Your task to perform on an android device: turn on sleep mode Image 0: 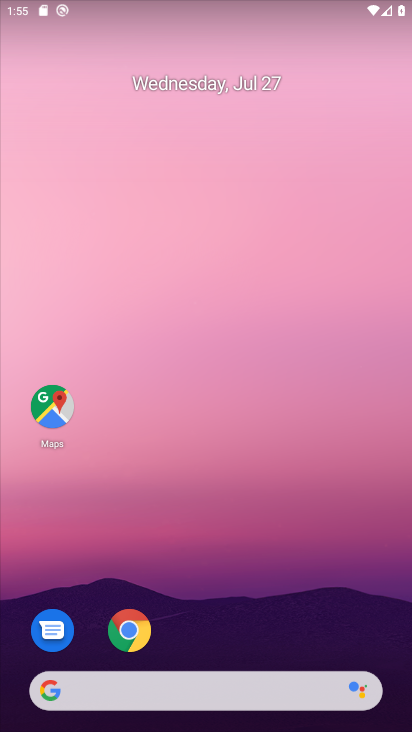
Step 0: drag from (248, 625) to (247, 37)
Your task to perform on an android device: turn on sleep mode Image 1: 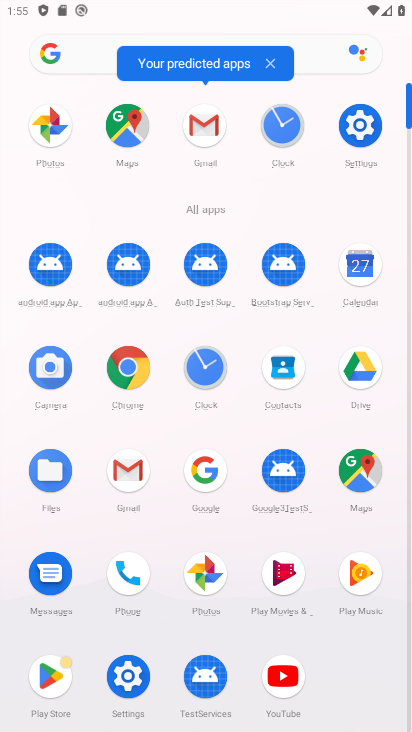
Step 1: click (125, 684)
Your task to perform on an android device: turn on sleep mode Image 2: 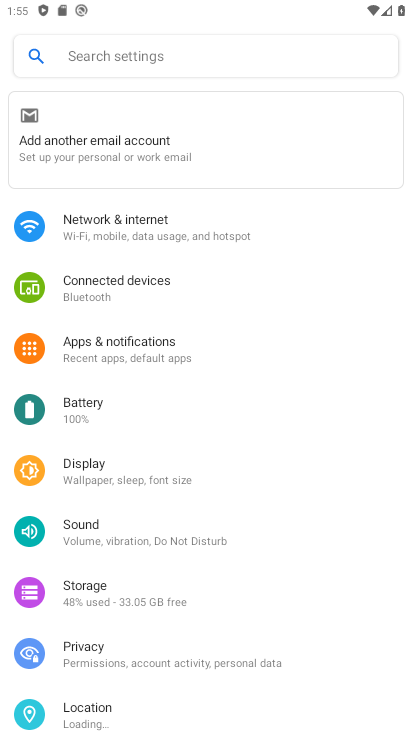
Step 2: click (114, 477)
Your task to perform on an android device: turn on sleep mode Image 3: 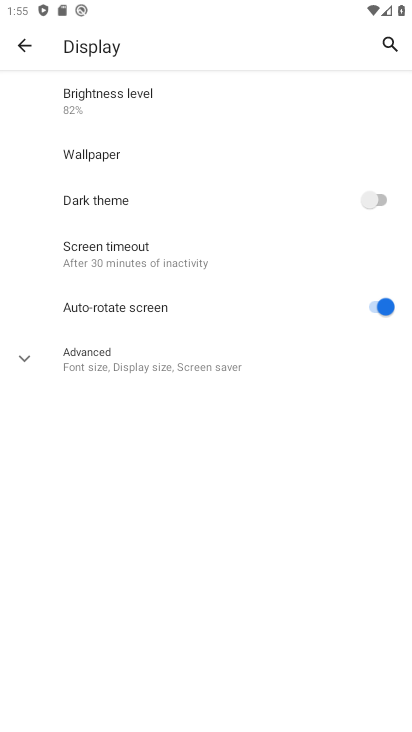
Step 3: click (176, 362)
Your task to perform on an android device: turn on sleep mode Image 4: 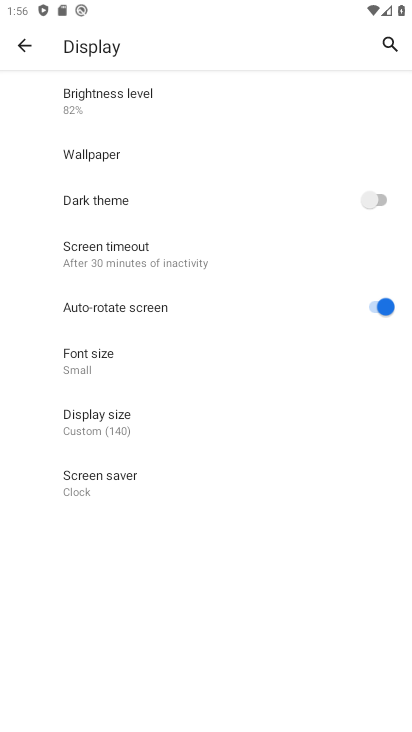
Step 4: task complete